Your task to perform on an android device: Go to internet settings Image 0: 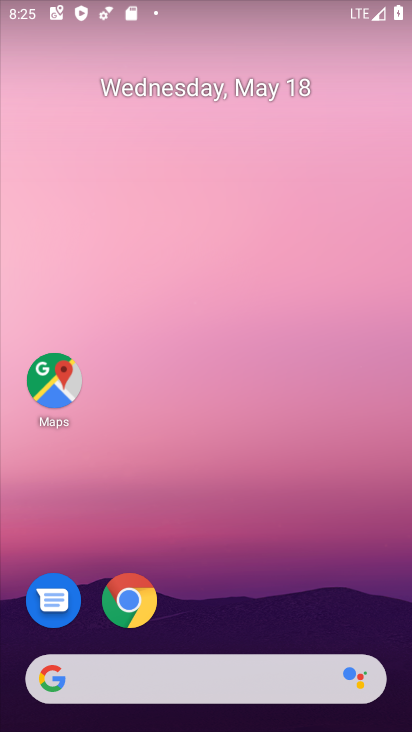
Step 0: drag from (215, 631) to (319, 106)
Your task to perform on an android device: Go to internet settings Image 1: 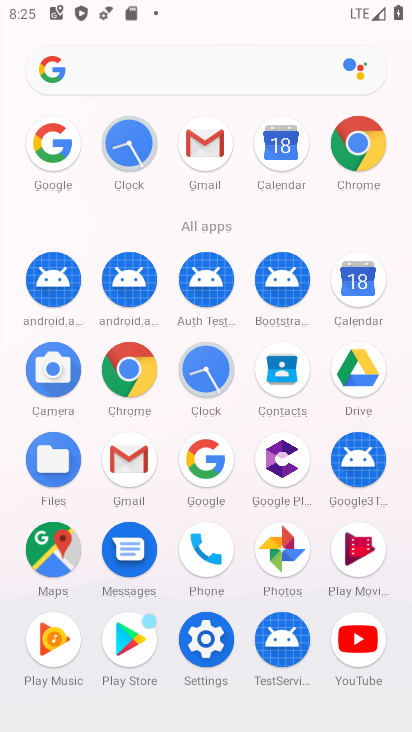
Step 1: click (210, 654)
Your task to perform on an android device: Go to internet settings Image 2: 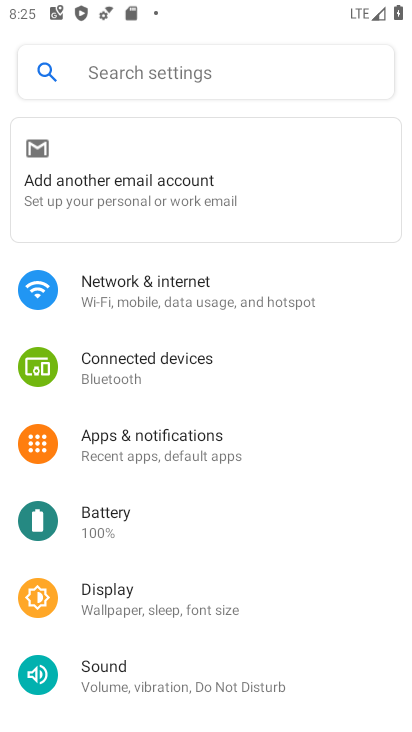
Step 2: click (190, 296)
Your task to perform on an android device: Go to internet settings Image 3: 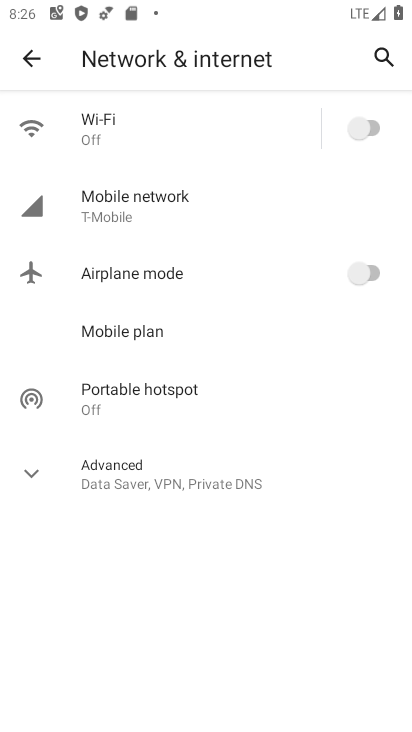
Step 3: task complete